Your task to perform on an android device: Open the calendar app, open the side menu, and click the "Day" option Image 0: 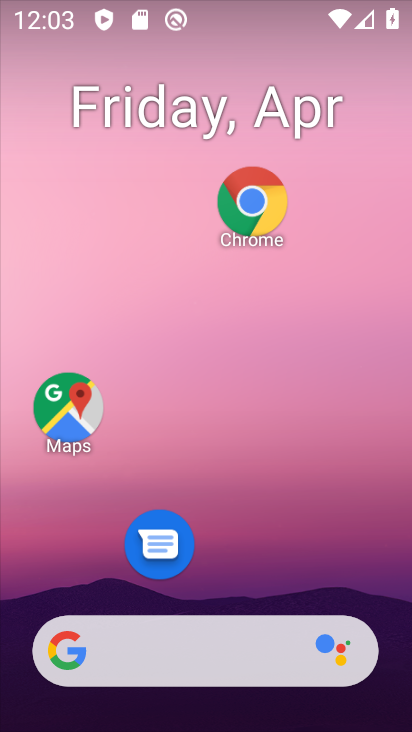
Step 0: drag from (225, 595) to (137, 23)
Your task to perform on an android device: Open the calendar app, open the side menu, and click the "Day" option Image 1: 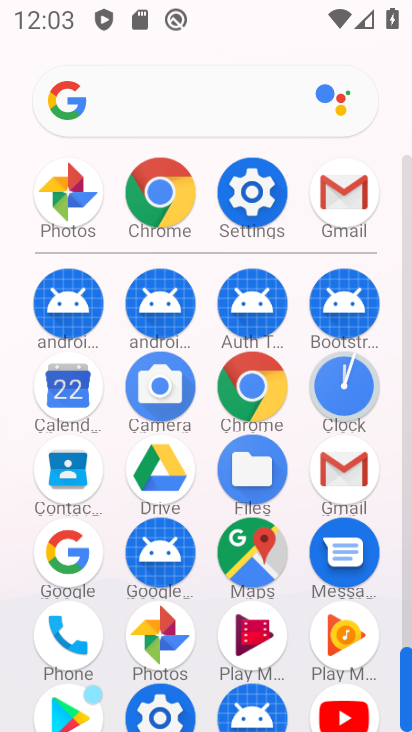
Step 1: click (73, 397)
Your task to perform on an android device: Open the calendar app, open the side menu, and click the "Day" option Image 2: 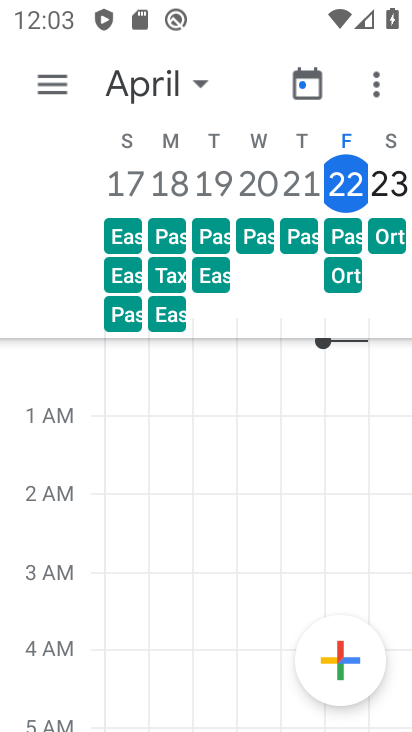
Step 2: click (57, 76)
Your task to perform on an android device: Open the calendar app, open the side menu, and click the "Day" option Image 3: 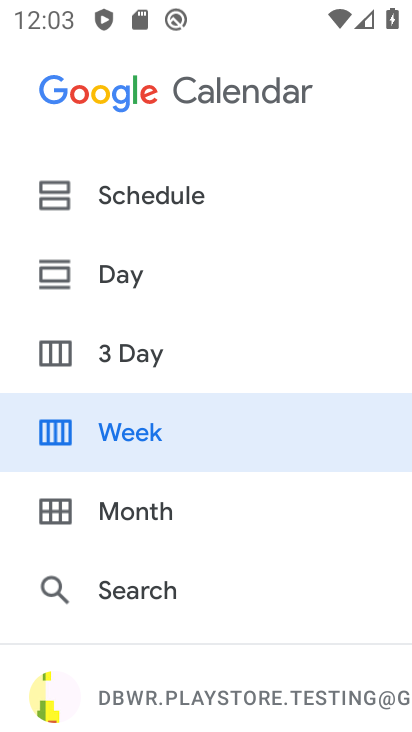
Step 3: click (106, 260)
Your task to perform on an android device: Open the calendar app, open the side menu, and click the "Day" option Image 4: 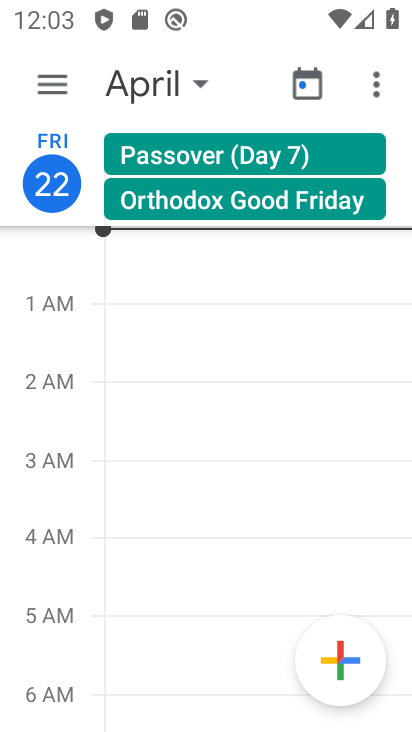
Step 4: task complete